Your task to perform on an android device: open app "Spotify" (install if not already installed) Image 0: 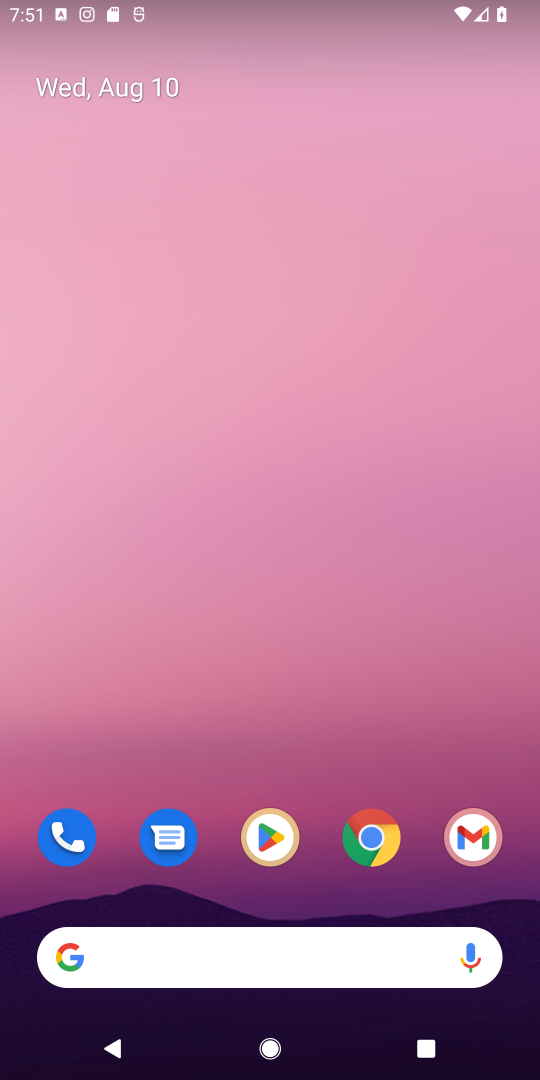
Step 0: click (262, 836)
Your task to perform on an android device: open app "Spotify" (install if not already installed) Image 1: 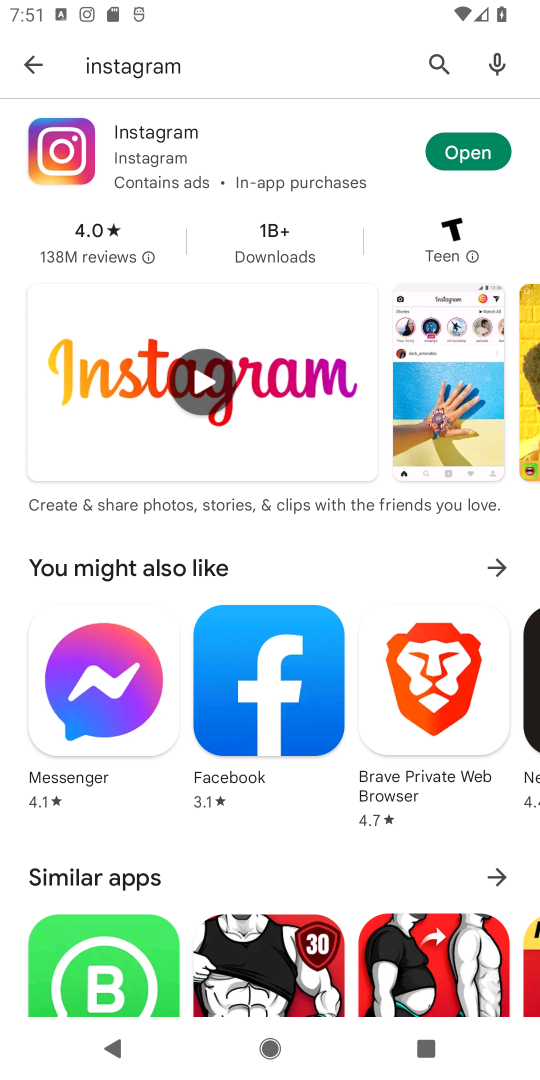
Step 1: click (433, 52)
Your task to perform on an android device: open app "Spotify" (install if not already installed) Image 2: 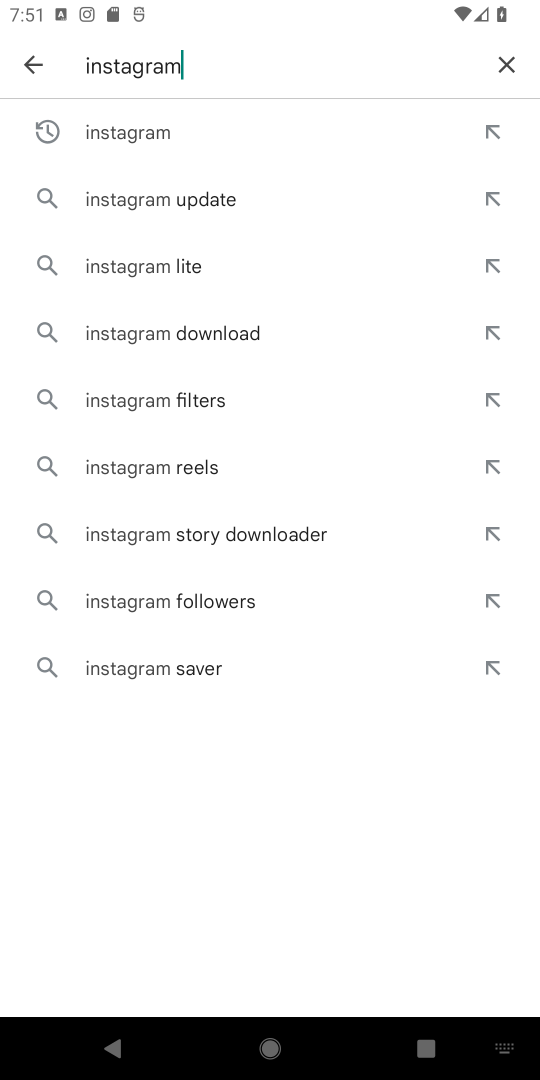
Step 2: click (497, 54)
Your task to perform on an android device: open app "Spotify" (install if not already installed) Image 3: 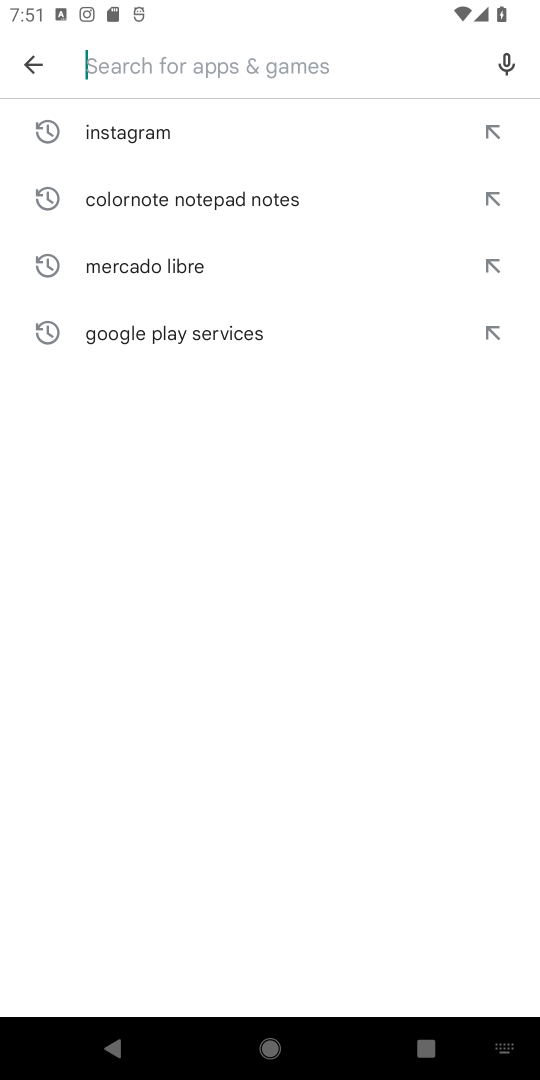
Step 3: type "Spotify"
Your task to perform on an android device: open app "Spotify" (install if not already installed) Image 4: 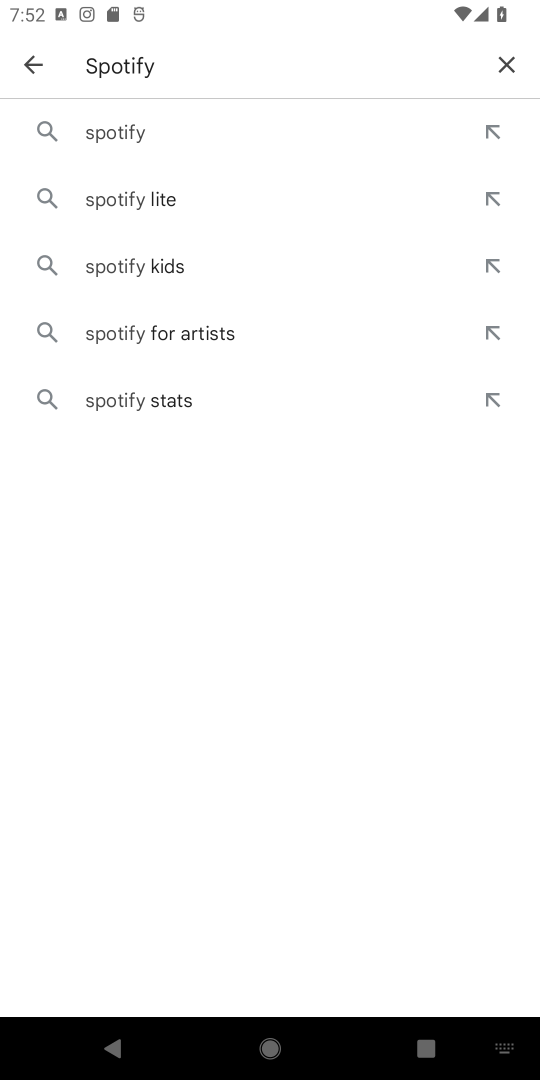
Step 4: click (117, 137)
Your task to perform on an android device: open app "Spotify" (install if not already installed) Image 5: 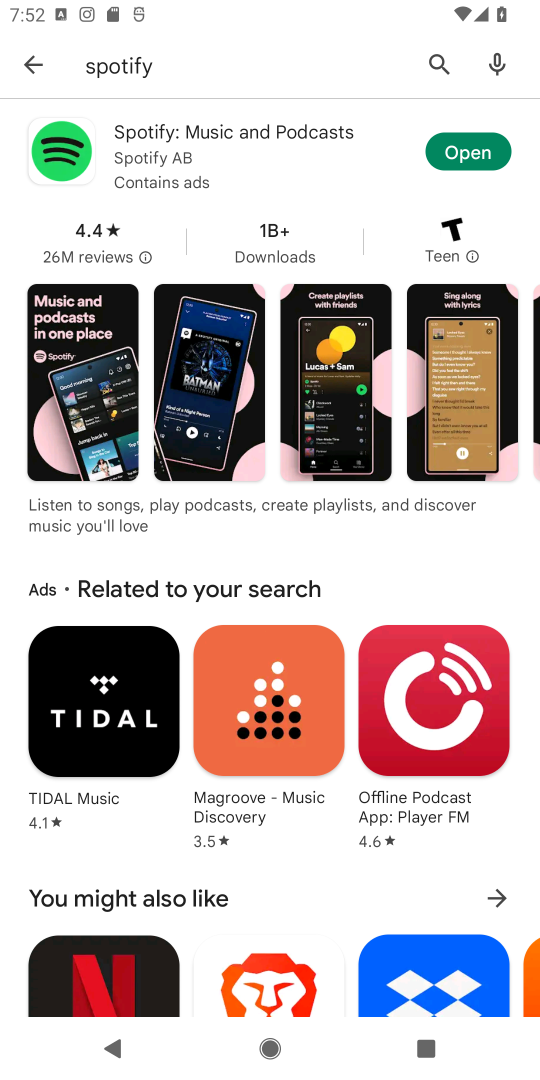
Step 5: click (494, 141)
Your task to perform on an android device: open app "Spotify" (install if not already installed) Image 6: 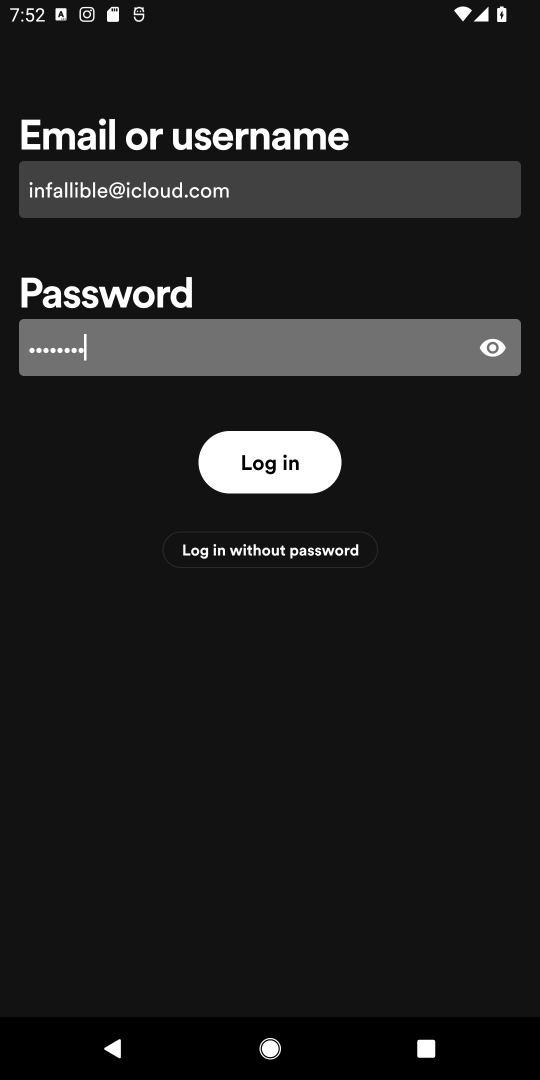
Step 6: task complete